Your task to perform on an android device: change the clock display to digital Image 0: 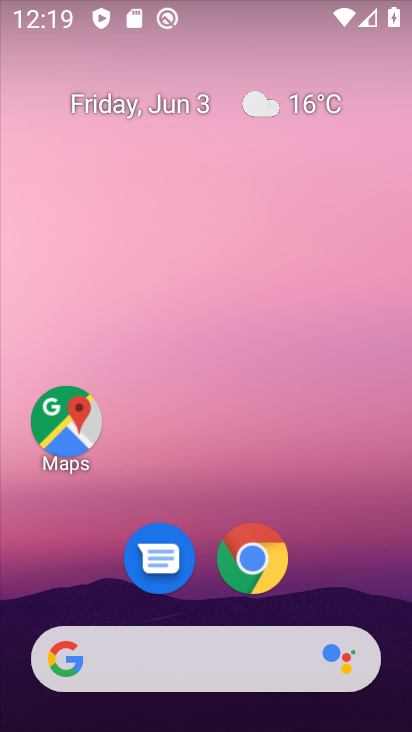
Step 0: drag from (365, 579) to (368, 198)
Your task to perform on an android device: change the clock display to digital Image 1: 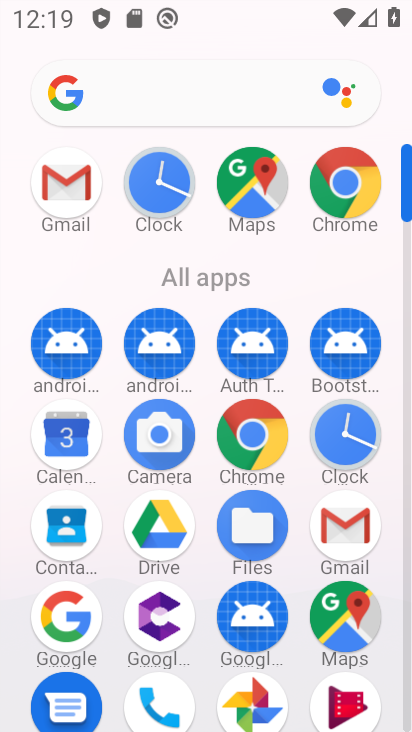
Step 1: click (347, 441)
Your task to perform on an android device: change the clock display to digital Image 2: 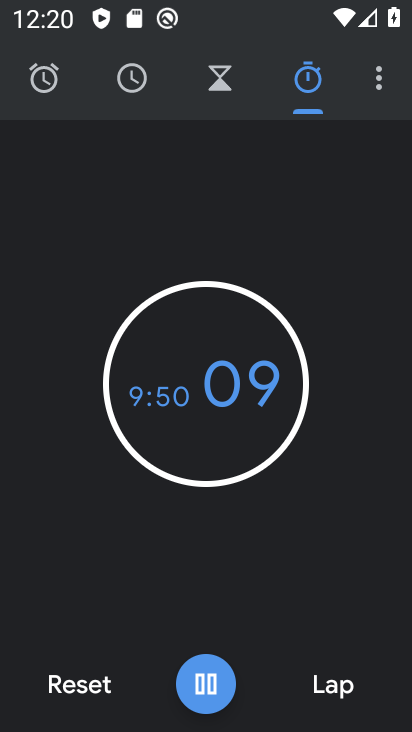
Step 2: click (378, 88)
Your task to perform on an android device: change the clock display to digital Image 3: 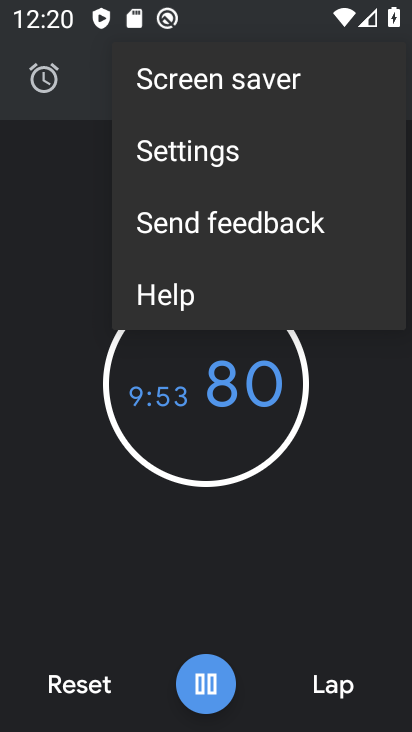
Step 3: click (261, 153)
Your task to perform on an android device: change the clock display to digital Image 4: 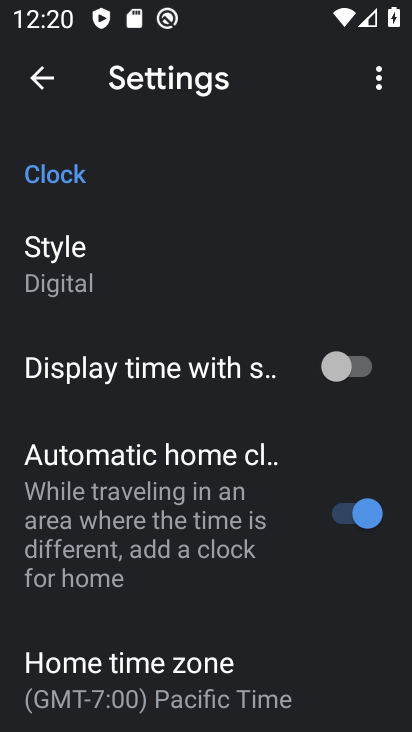
Step 4: task complete